Your task to perform on an android device: visit the assistant section in the google photos Image 0: 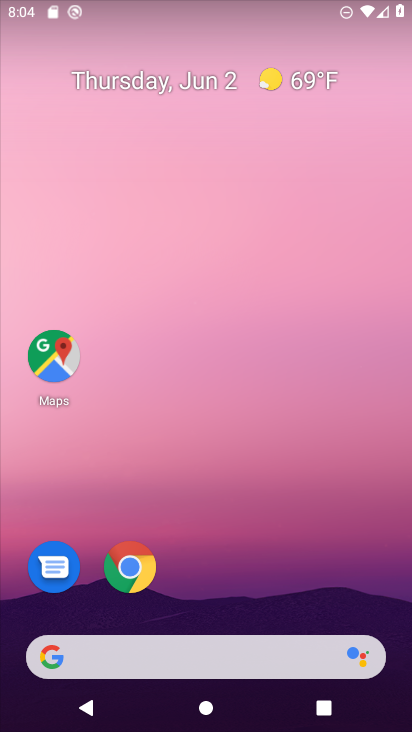
Step 0: drag from (369, 604) to (313, 51)
Your task to perform on an android device: visit the assistant section in the google photos Image 1: 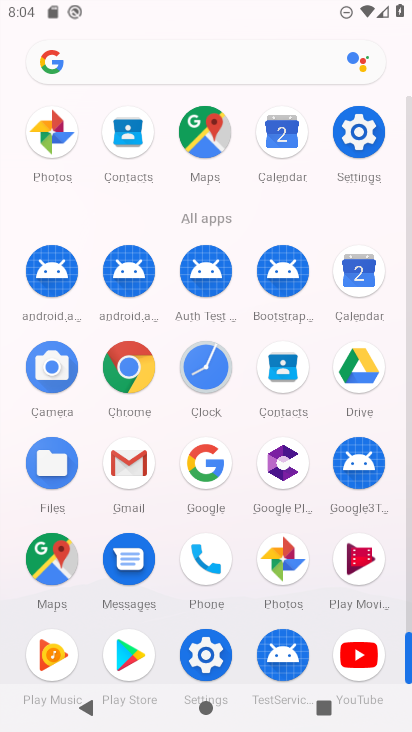
Step 1: click (277, 558)
Your task to perform on an android device: visit the assistant section in the google photos Image 2: 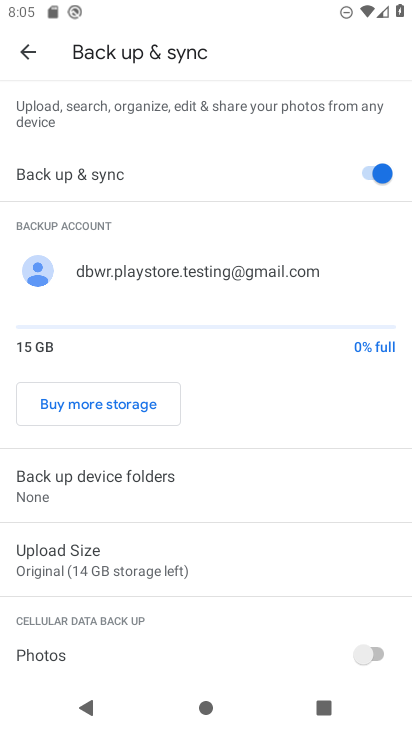
Step 2: press back button
Your task to perform on an android device: visit the assistant section in the google photos Image 3: 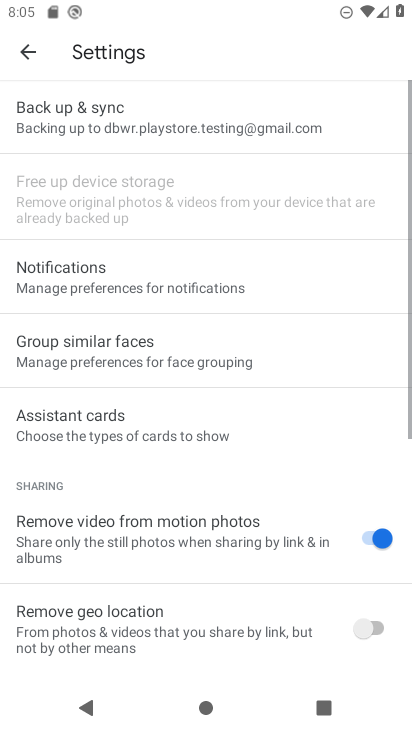
Step 3: press back button
Your task to perform on an android device: visit the assistant section in the google photos Image 4: 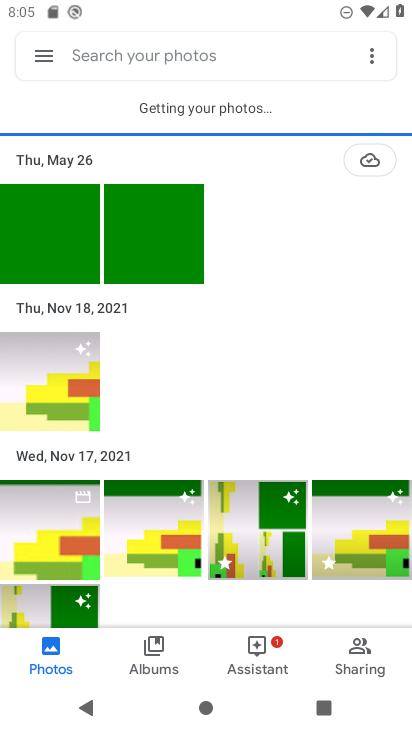
Step 4: click (261, 655)
Your task to perform on an android device: visit the assistant section in the google photos Image 5: 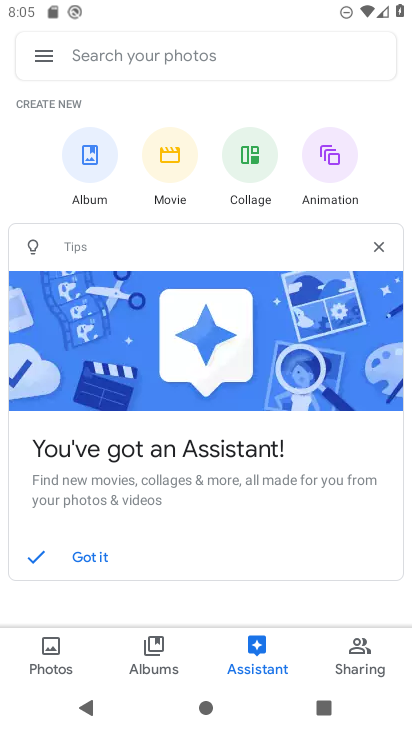
Step 5: task complete